Your task to perform on an android device: Open Youtube and go to the subscriptions tab Image 0: 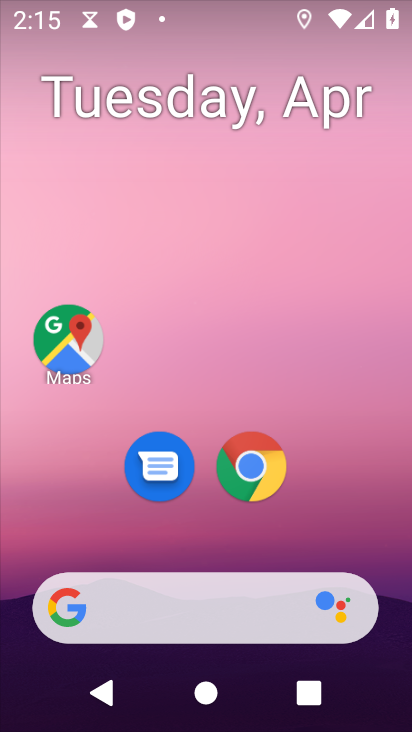
Step 0: drag from (354, 459) to (330, 39)
Your task to perform on an android device: Open Youtube and go to the subscriptions tab Image 1: 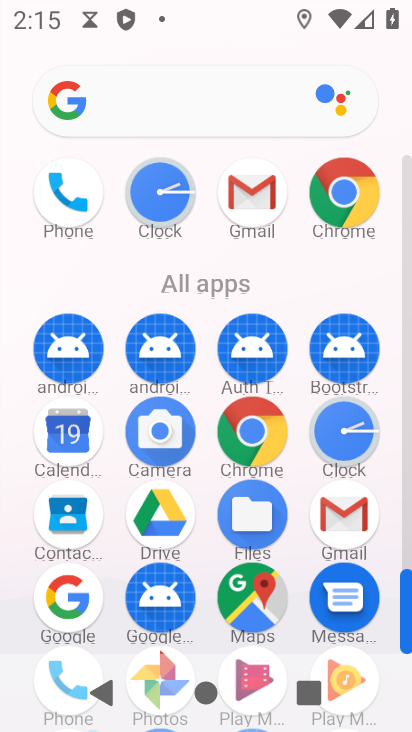
Step 1: drag from (14, 522) to (27, 246)
Your task to perform on an android device: Open Youtube and go to the subscriptions tab Image 2: 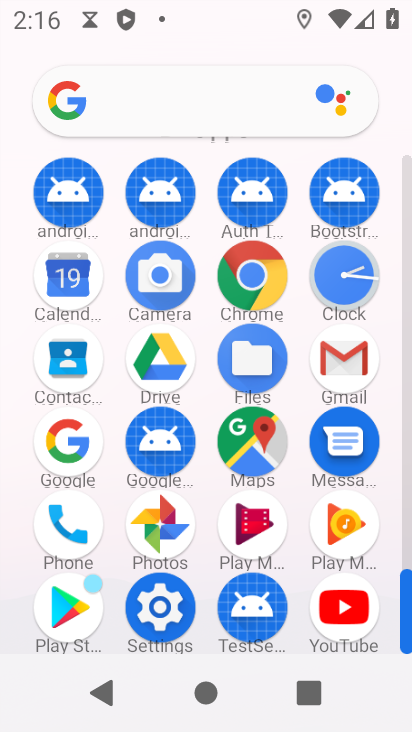
Step 2: click (339, 608)
Your task to perform on an android device: Open Youtube and go to the subscriptions tab Image 3: 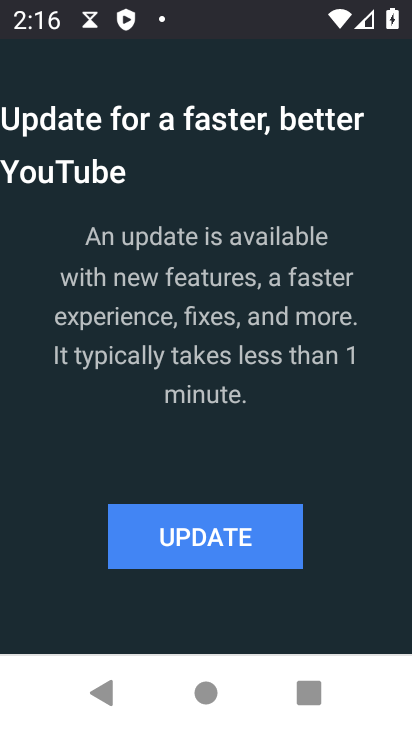
Step 3: click (228, 551)
Your task to perform on an android device: Open Youtube and go to the subscriptions tab Image 4: 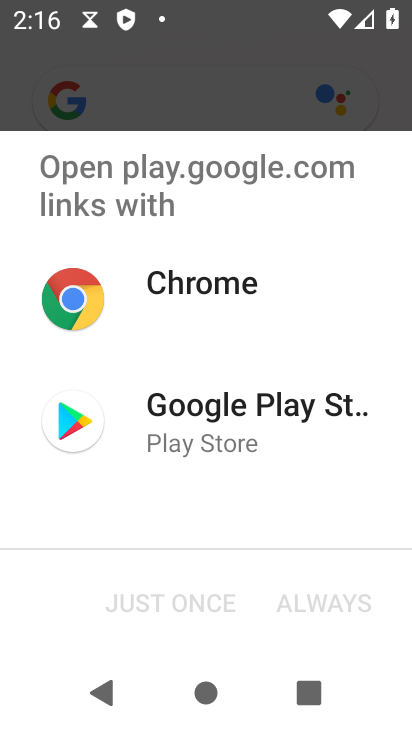
Step 4: click (238, 431)
Your task to perform on an android device: Open Youtube and go to the subscriptions tab Image 5: 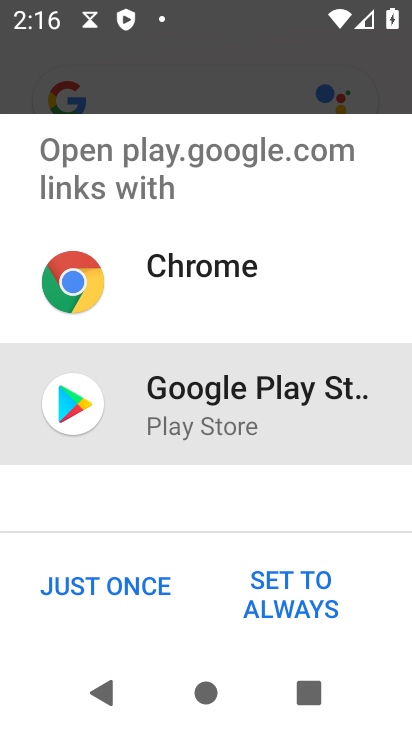
Step 5: click (309, 588)
Your task to perform on an android device: Open Youtube and go to the subscriptions tab Image 6: 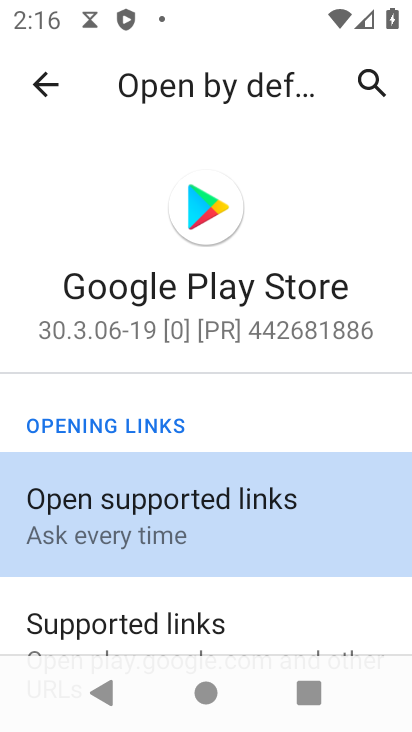
Step 6: press back button
Your task to perform on an android device: Open Youtube and go to the subscriptions tab Image 7: 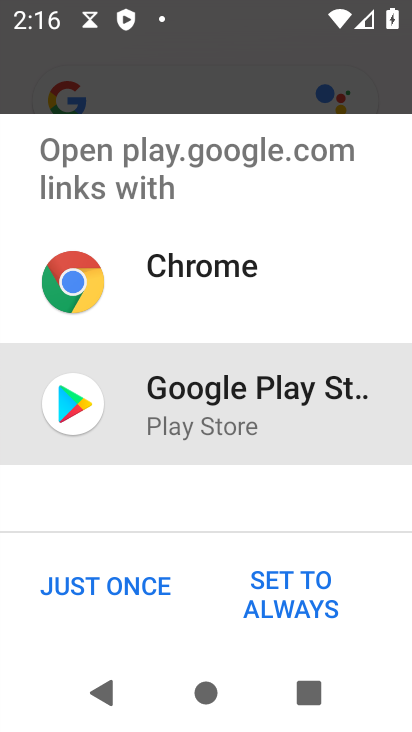
Step 7: click (261, 376)
Your task to perform on an android device: Open Youtube and go to the subscriptions tab Image 8: 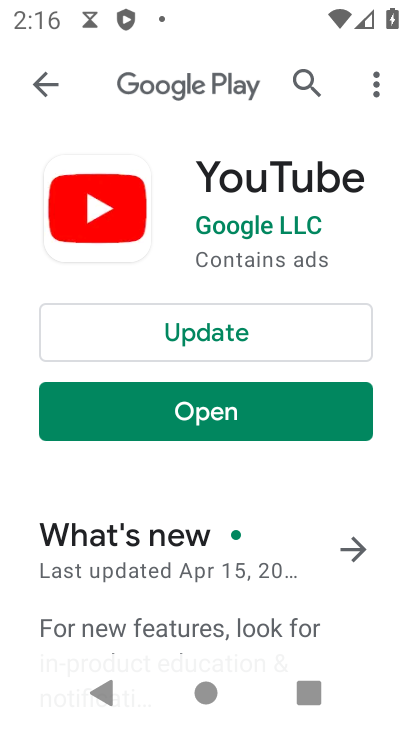
Step 8: click (232, 325)
Your task to perform on an android device: Open Youtube and go to the subscriptions tab Image 9: 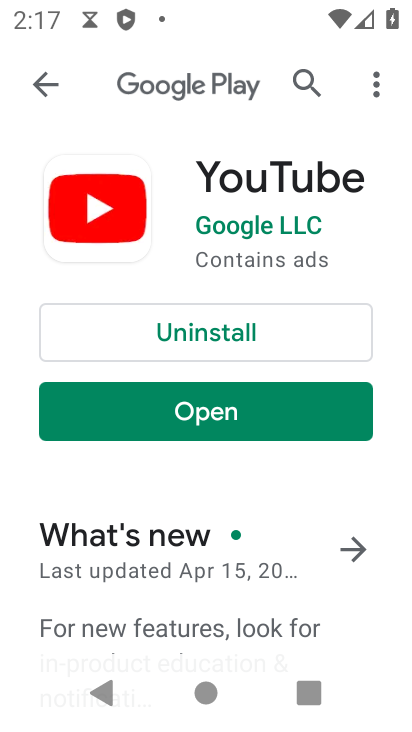
Step 9: click (196, 395)
Your task to perform on an android device: Open Youtube and go to the subscriptions tab Image 10: 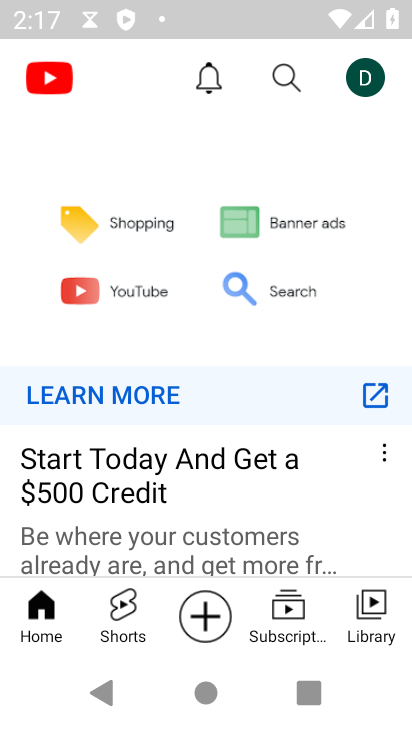
Step 10: drag from (244, 472) to (252, 358)
Your task to perform on an android device: Open Youtube and go to the subscriptions tab Image 11: 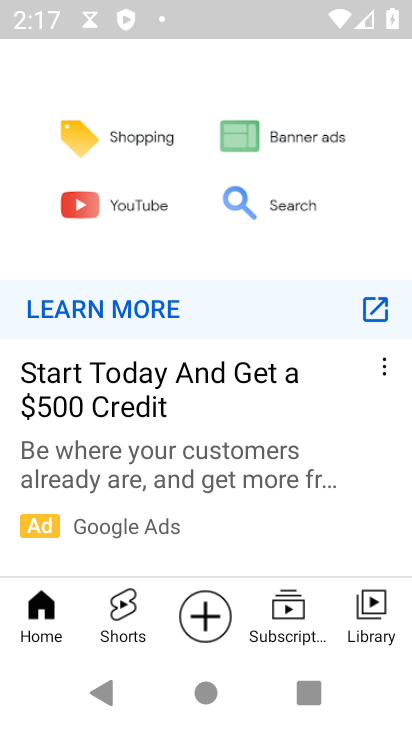
Step 11: click (274, 596)
Your task to perform on an android device: Open Youtube and go to the subscriptions tab Image 12: 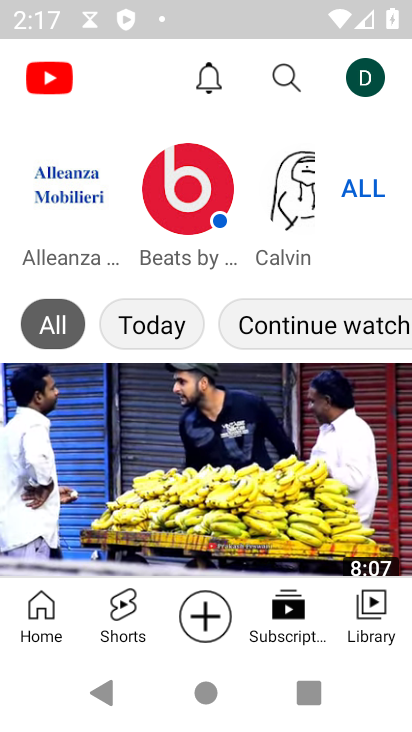
Step 12: task complete